Your task to perform on an android device: turn off airplane mode Image 0: 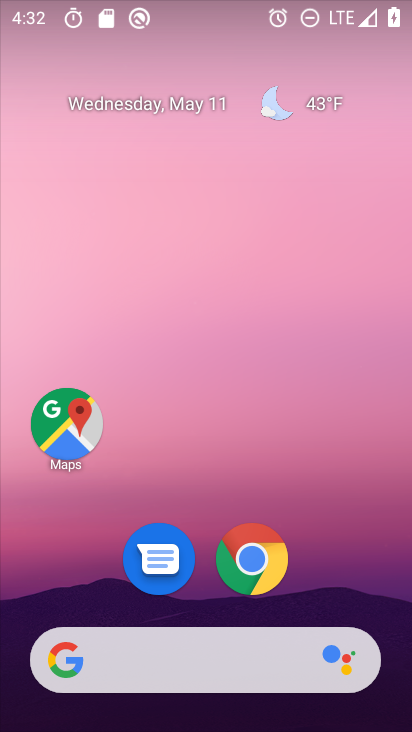
Step 0: drag from (339, 554) to (207, 89)
Your task to perform on an android device: turn off airplane mode Image 1: 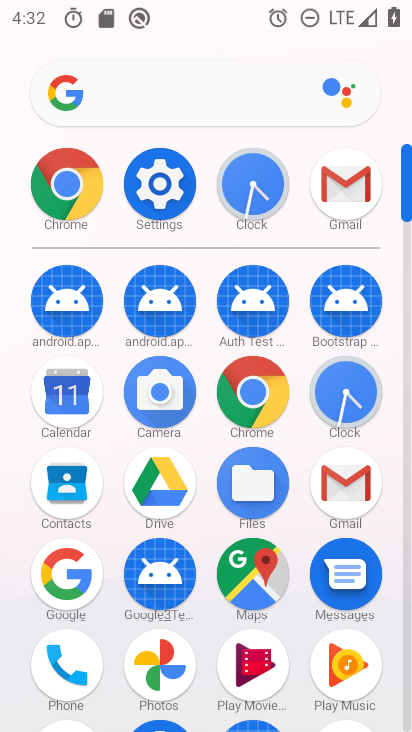
Step 1: click (167, 176)
Your task to perform on an android device: turn off airplane mode Image 2: 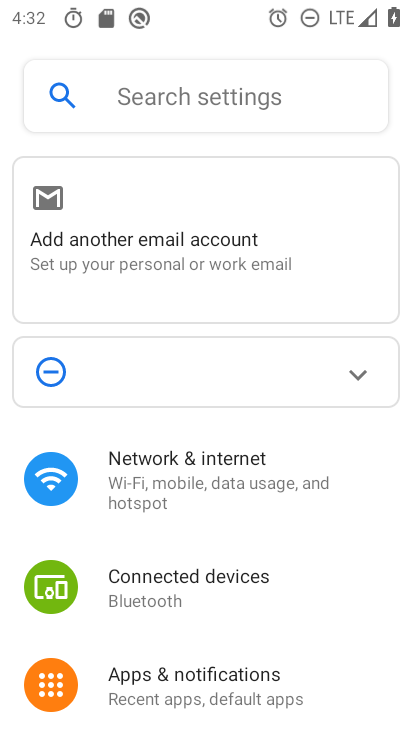
Step 2: click (232, 492)
Your task to perform on an android device: turn off airplane mode Image 3: 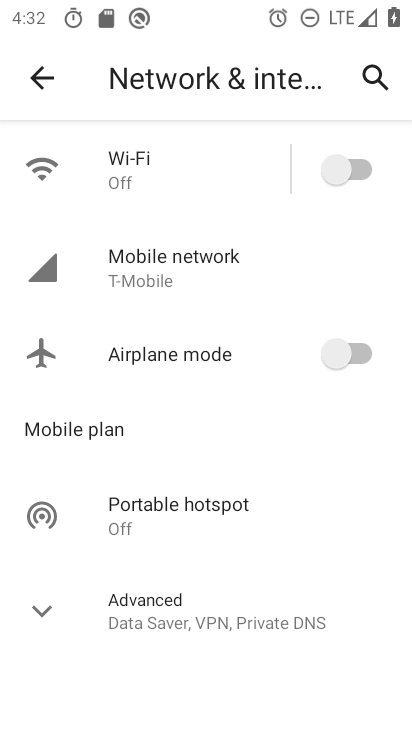
Step 3: task complete